Your task to perform on an android device: open the mobile data screen to see how much data has been used Image 0: 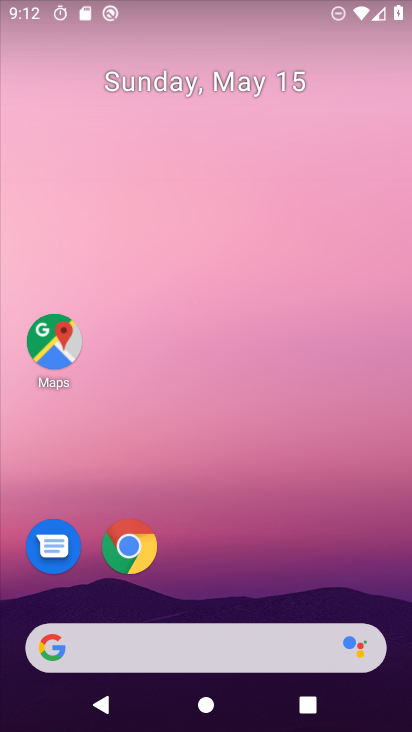
Step 0: drag from (243, 506) to (225, 39)
Your task to perform on an android device: open the mobile data screen to see how much data has been used Image 1: 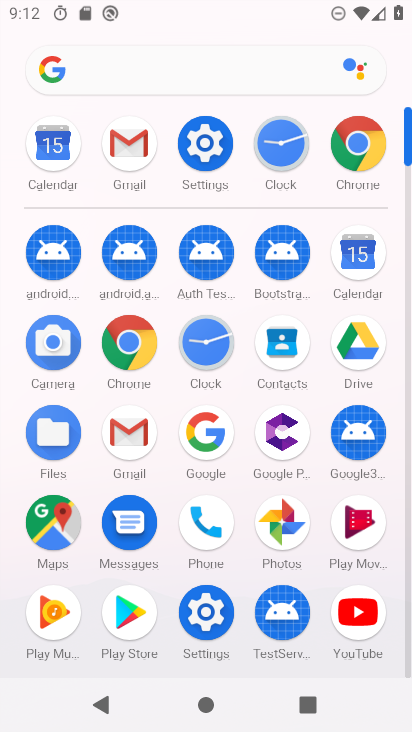
Step 1: click (204, 127)
Your task to perform on an android device: open the mobile data screen to see how much data has been used Image 2: 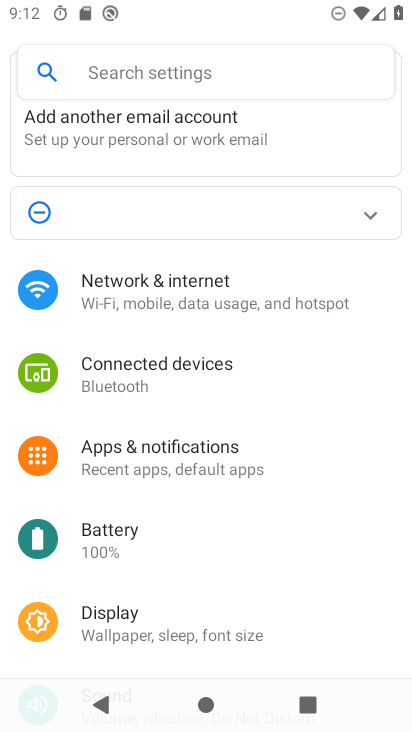
Step 2: click (210, 314)
Your task to perform on an android device: open the mobile data screen to see how much data has been used Image 3: 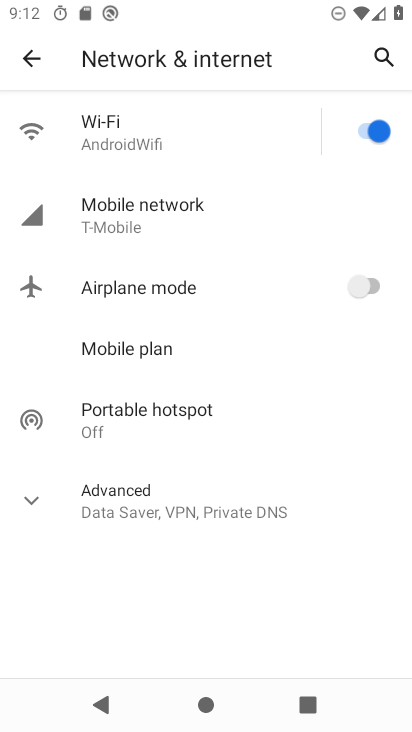
Step 3: click (248, 205)
Your task to perform on an android device: open the mobile data screen to see how much data has been used Image 4: 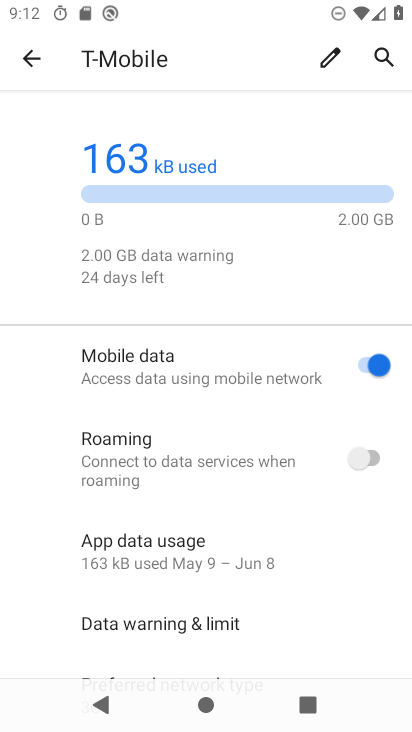
Step 4: task complete